Your task to perform on an android device: Open the calendar and show me this week's events? Image 0: 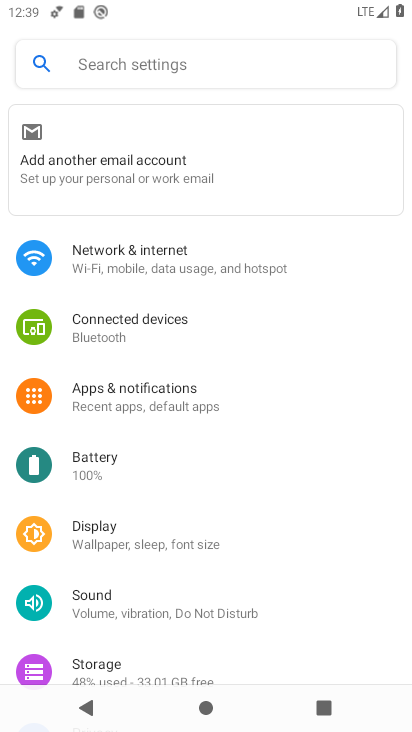
Step 0: press home button
Your task to perform on an android device: Open the calendar and show me this week's events? Image 1: 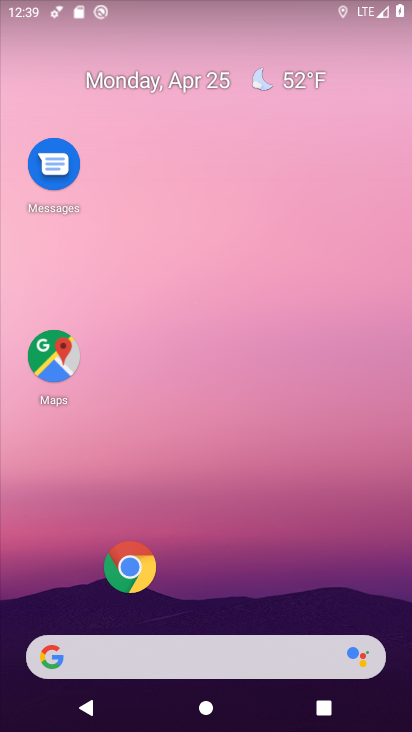
Step 1: drag from (238, 508) to (340, 51)
Your task to perform on an android device: Open the calendar and show me this week's events? Image 2: 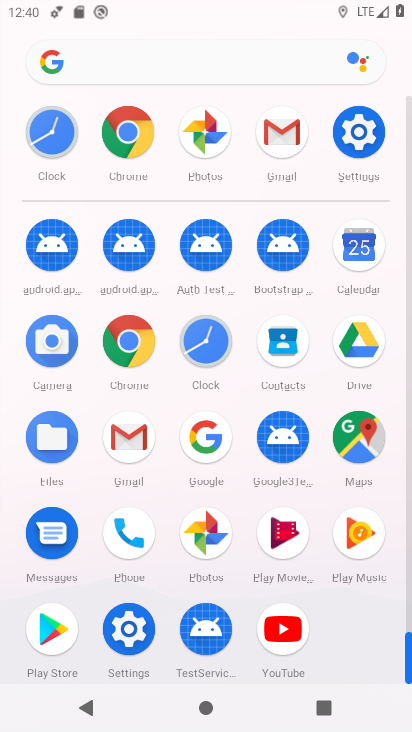
Step 2: click (347, 255)
Your task to perform on an android device: Open the calendar and show me this week's events? Image 3: 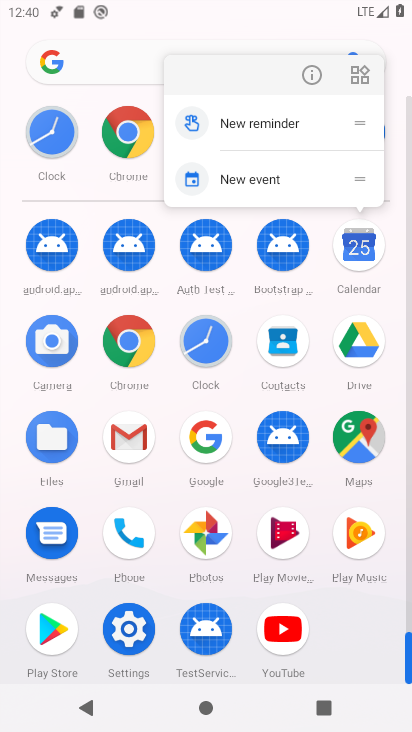
Step 3: click (354, 260)
Your task to perform on an android device: Open the calendar and show me this week's events? Image 4: 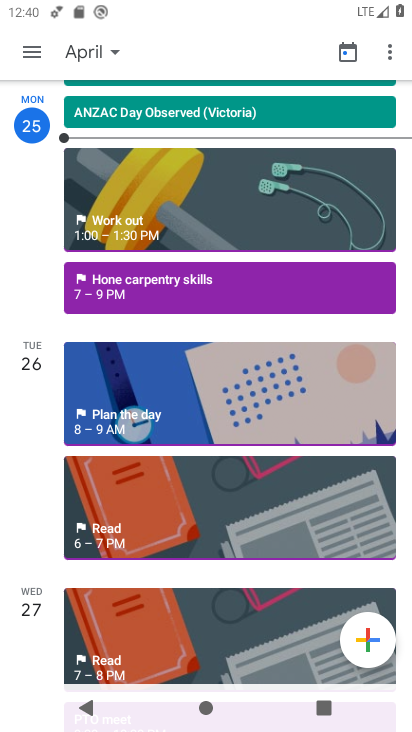
Step 4: task complete